Your task to perform on an android device: Go to internet settings Image 0: 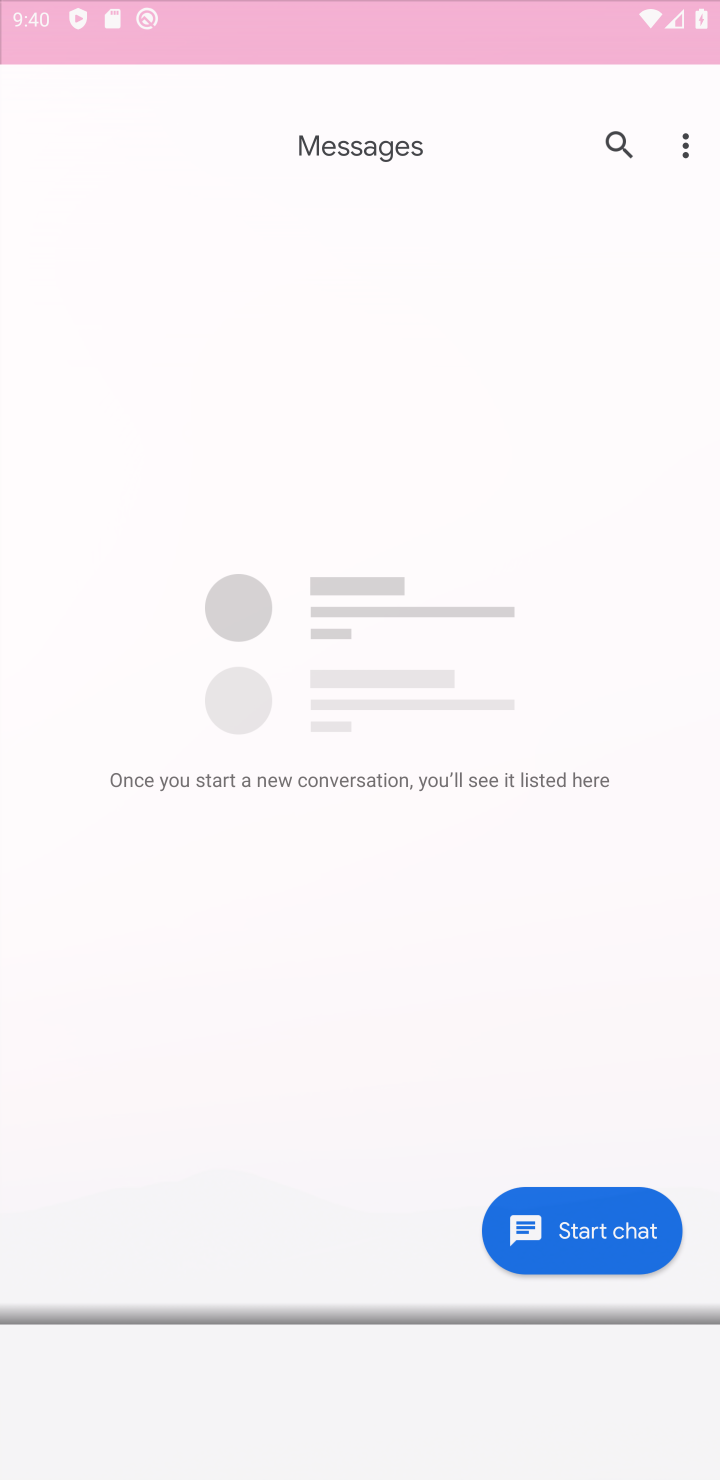
Step 0: press home button
Your task to perform on an android device: Go to internet settings Image 1: 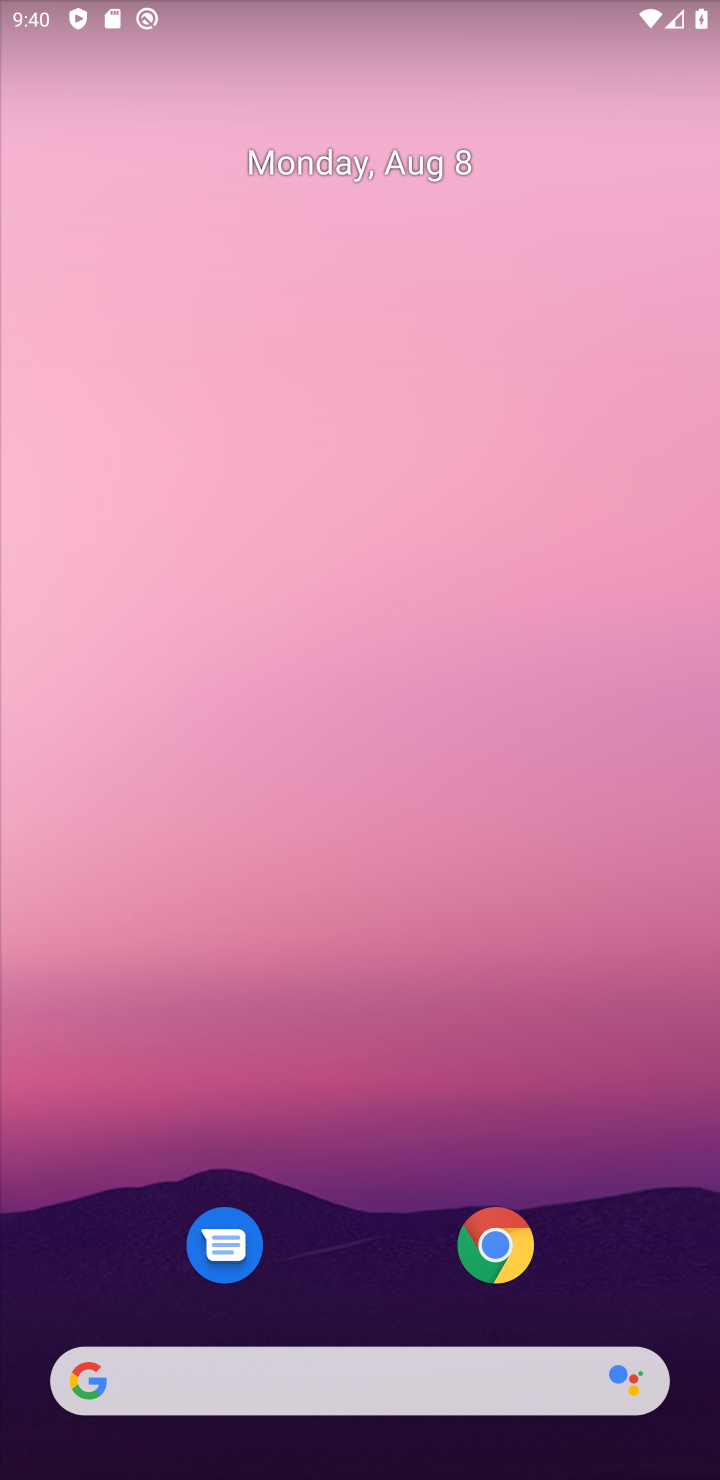
Step 1: drag from (333, 1165) to (286, 249)
Your task to perform on an android device: Go to internet settings Image 2: 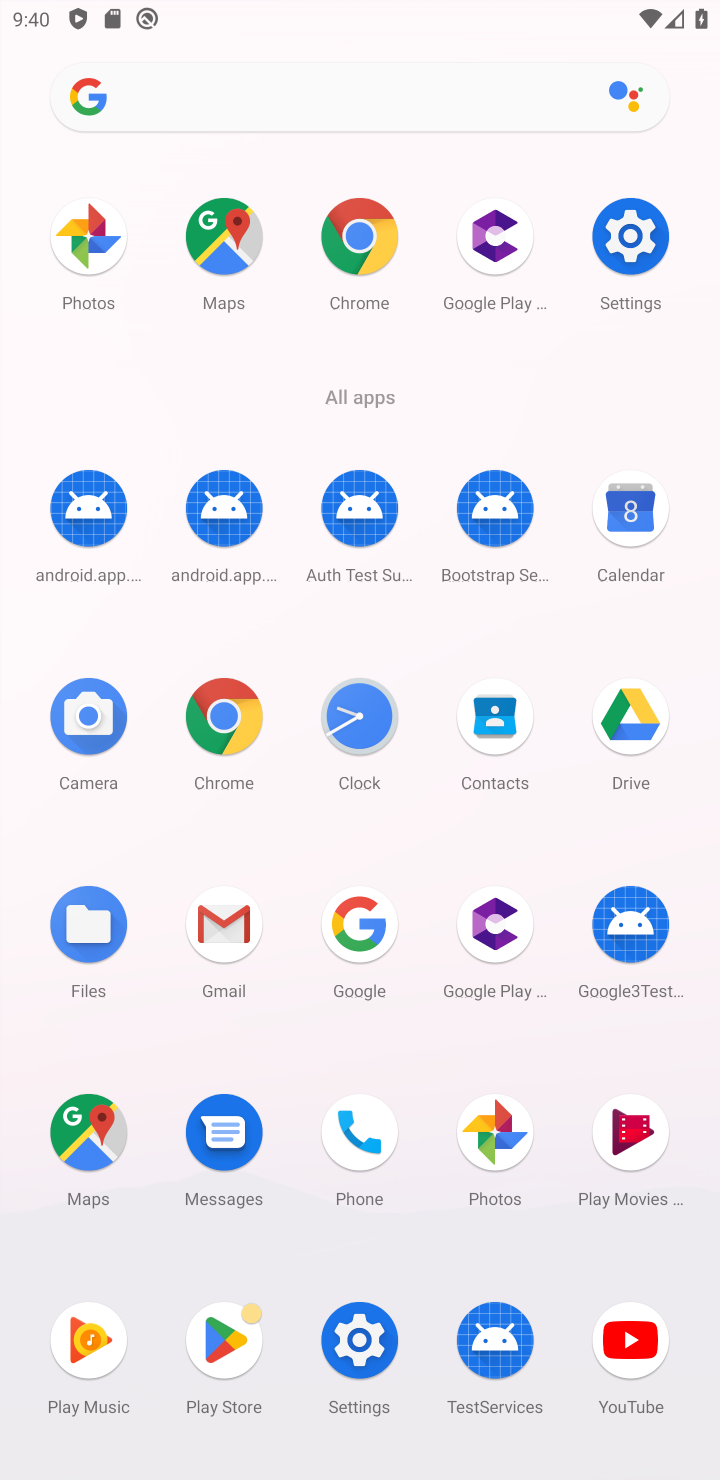
Step 2: click (633, 233)
Your task to perform on an android device: Go to internet settings Image 3: 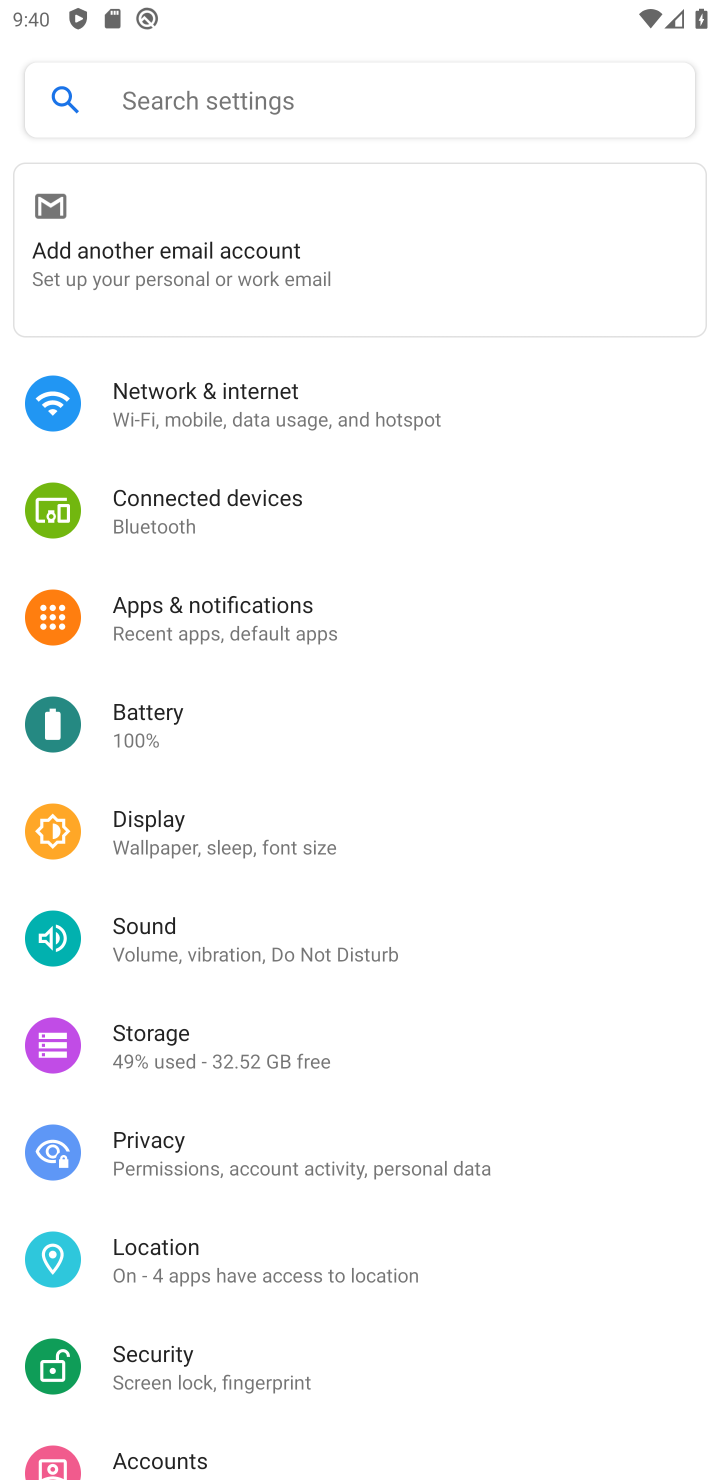
Step 3: click (209, 388)
Your task to perform on an android device: Go to internet settings Image 4: 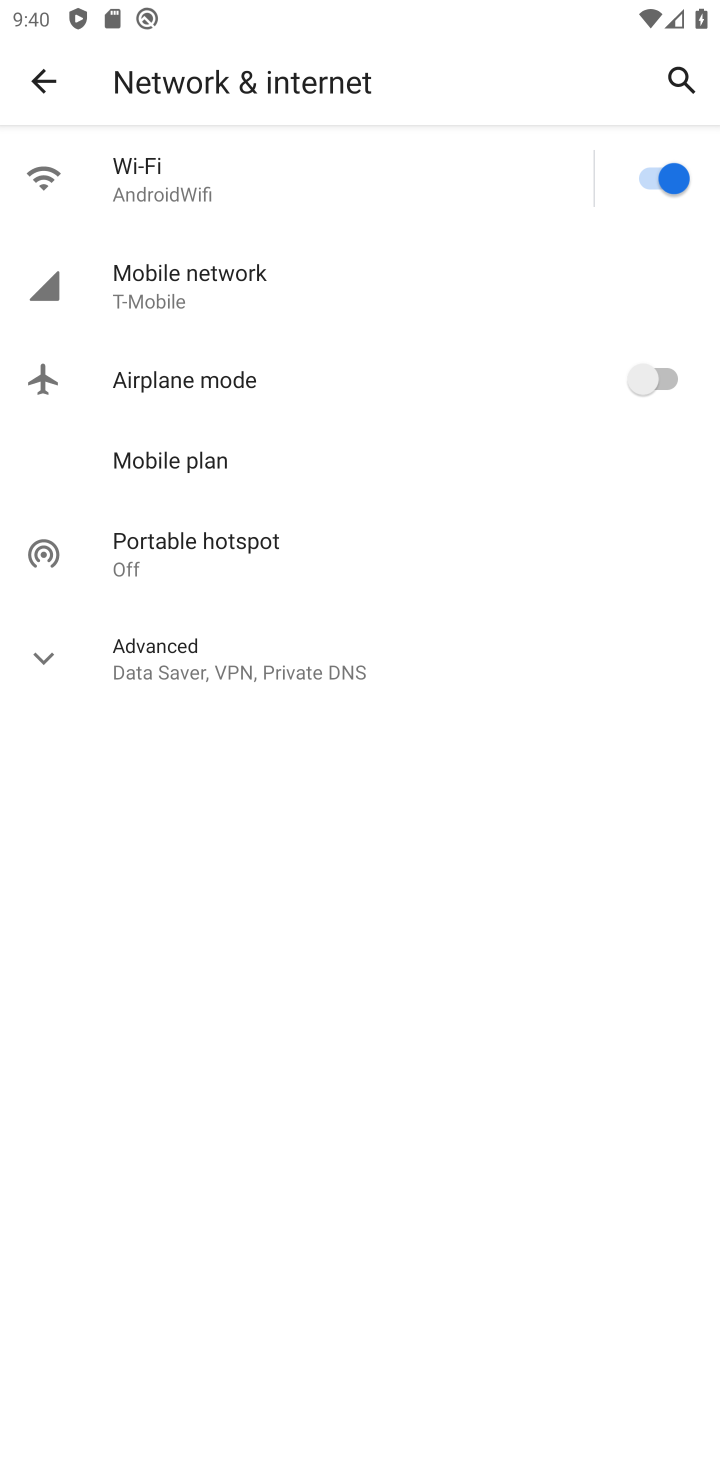
Step 4: task complete